Your task to perform on an android device: Clear the cart on walmart.com. Add "logitech g pro" to the cart on walmart.com Image 0: 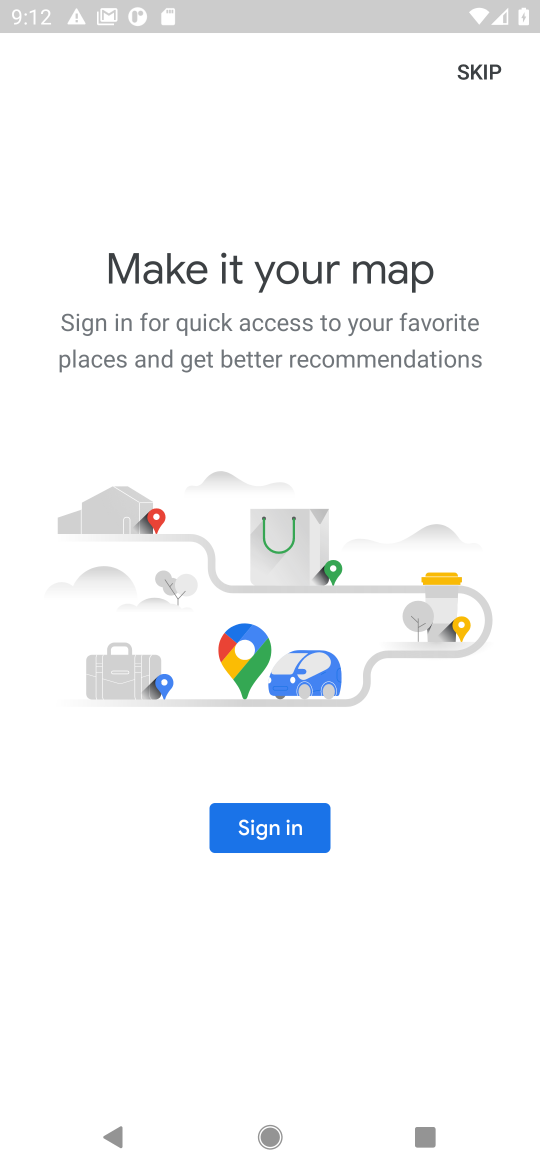
Step 0: press home button
Your task to perform on an android device: Clear the cart on walmart.com. Add "logitech g pro" to the cart on walmart.com Image 1: 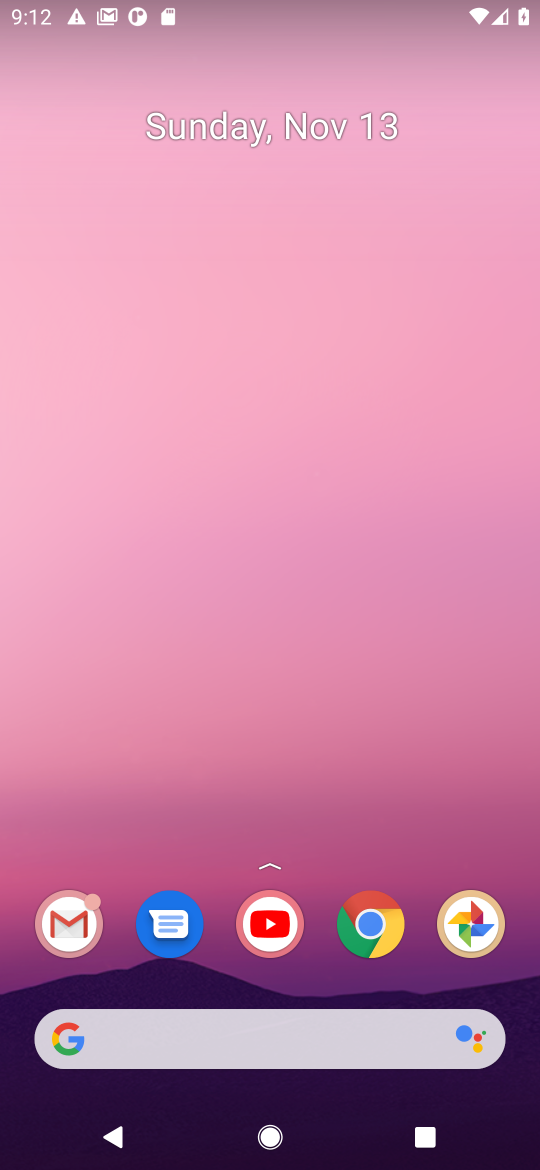
Step 1: click (373, 934)
Your task to perform on an android device: Clear the cart on walmart.com. Add "logitech g pro" to the cart on walmart.com Image 2: 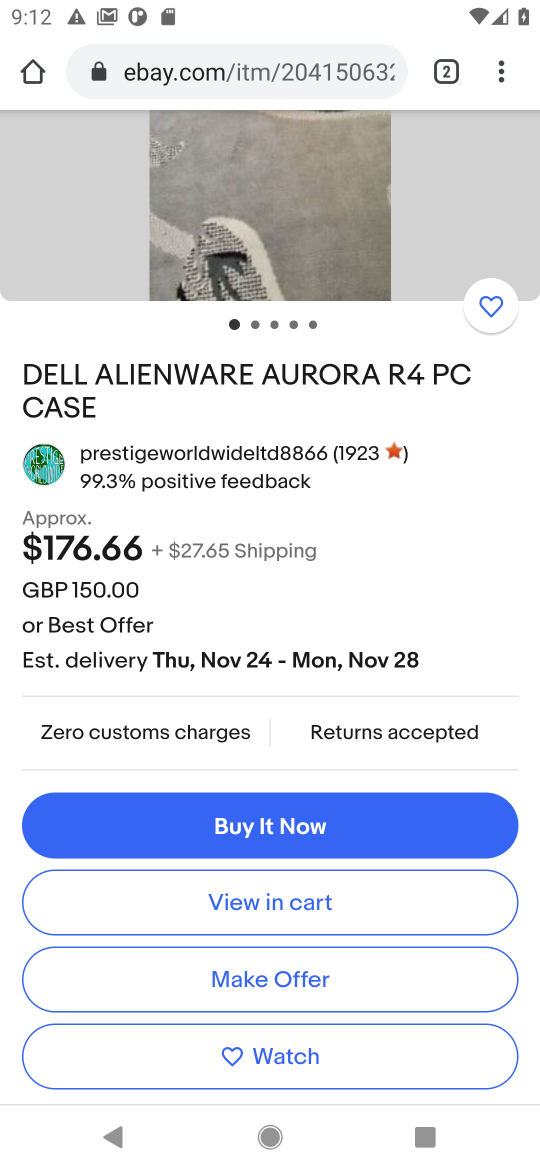
Step 2: click (217, 64)
Your task to perform on an android device: Clear the cart on walmart.com. Add "logitech g pro" to the cart on walmart.com Image 3: 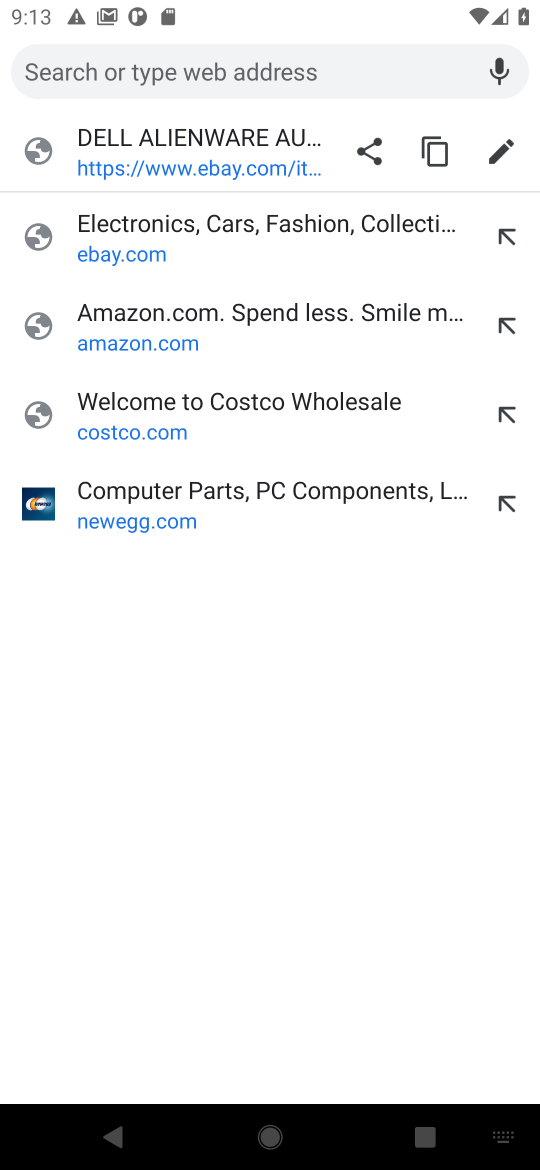
Step 3: click (170, 76)
Your task to perform on an android device: Clear the cart on walmart.com. Add "logitech g pro" to the cart on walmart.com Image 4: 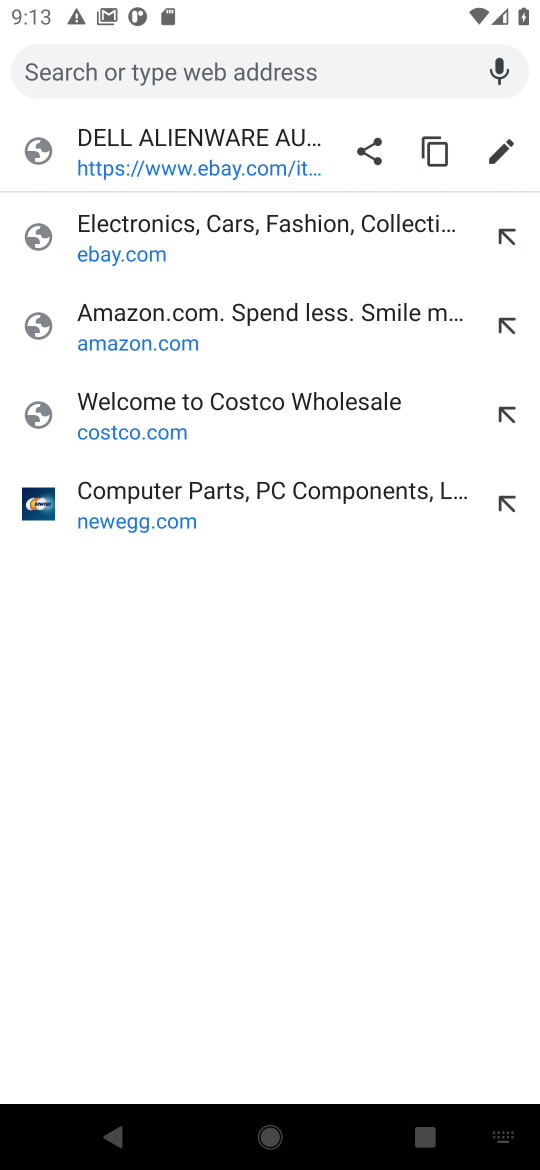
Step 4: type "walamrt.com"
Your task to perform on an android device: Clear the cart on walmart.com. Add "logitech g pro" to the cart on walmart.com Image 5: 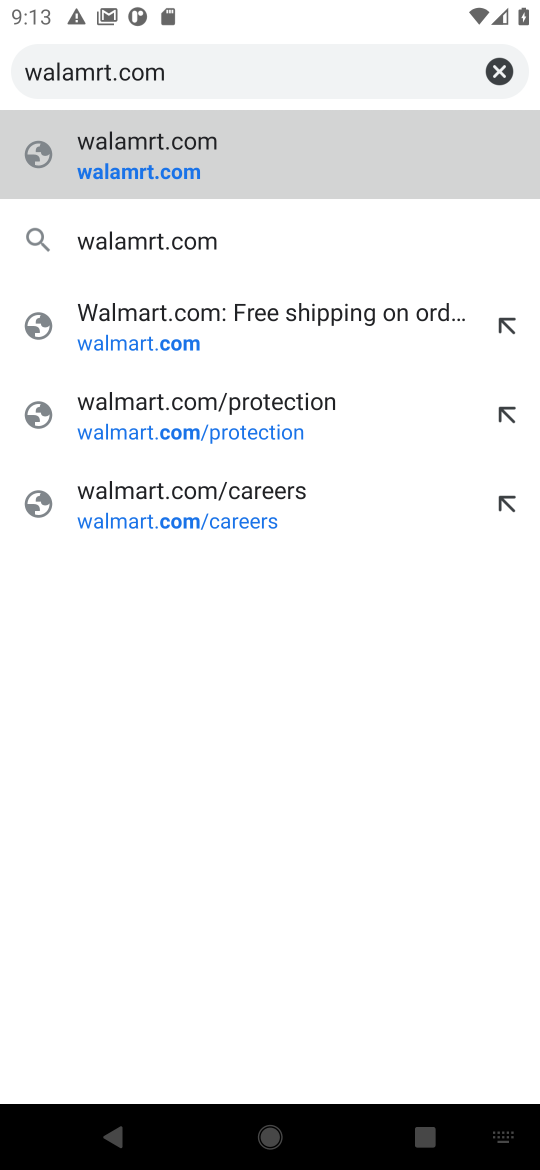
Step 5: click (124, 346)
Your task to perform on an android device: Clear the cart on walmart.com. Add "logitech g pro" to the cart on walmart.com Image 6: 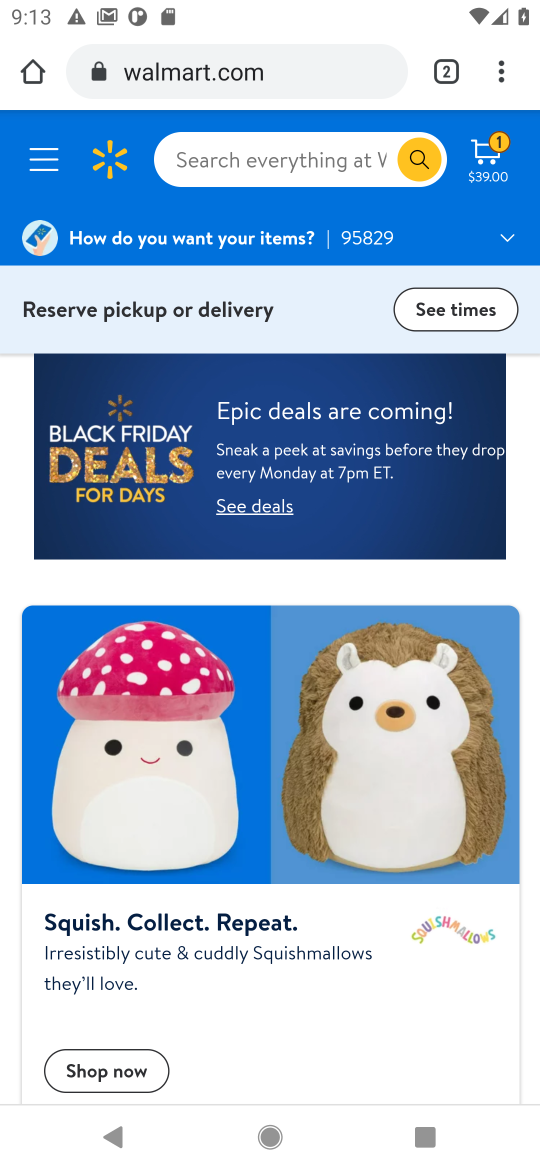
Step 6: click (292, 170)
Your task to perform on an android device: Clear the cart on walmart.com. Add "logitech g pro" to the cart on walmart.com Image 7: 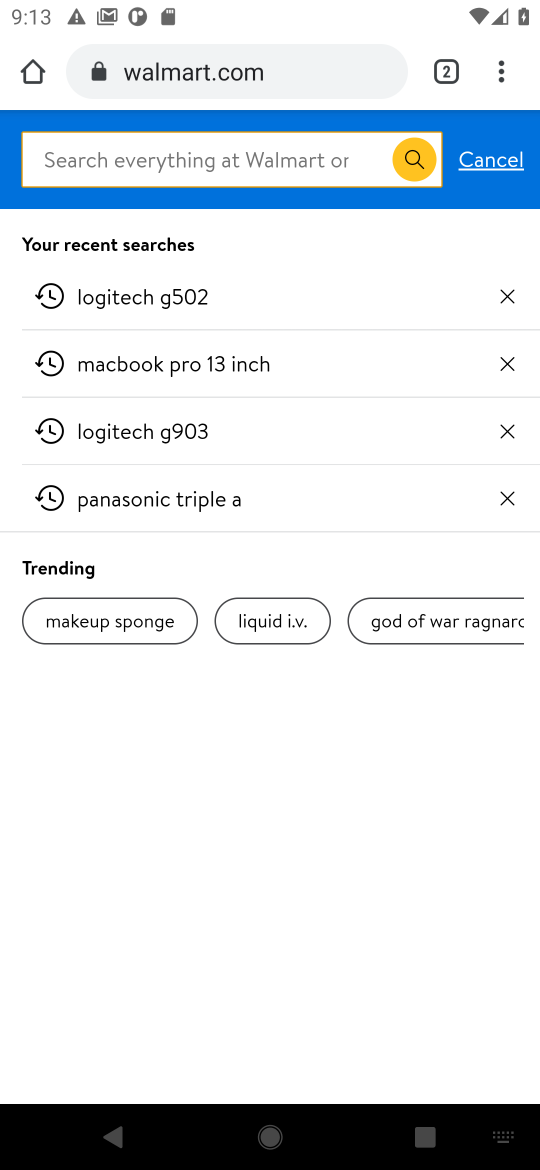
Step 7: click (513, 161)
Your task to perform on an android device: Clear the cart on walmart.com. Add "logitech g pro" to the cart on walmart.com Image 8: 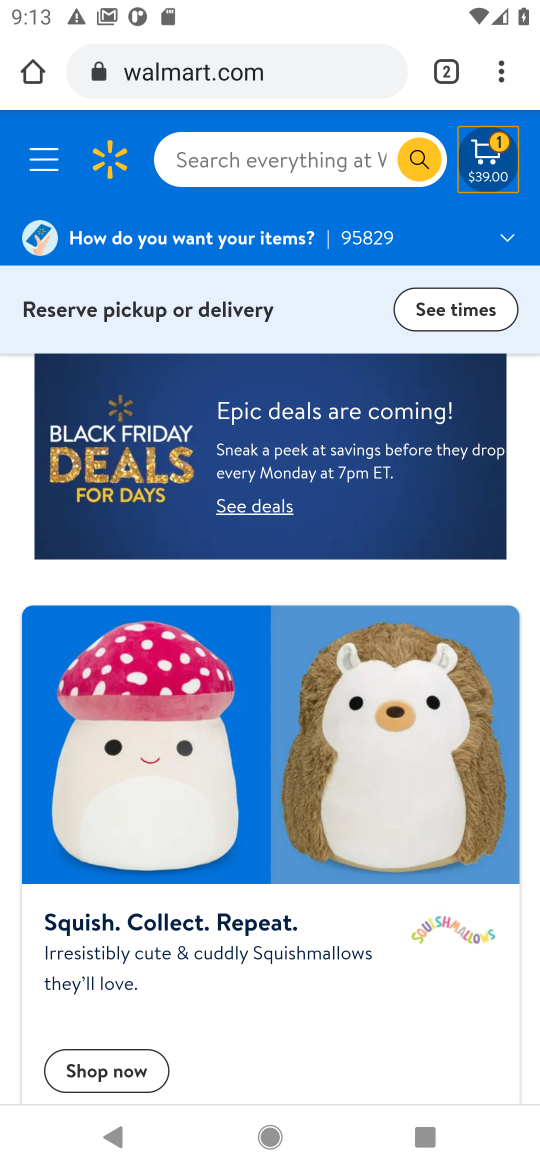
Step 8: click (492, 170)
Your task to perform on an android device: Clear the cart on walmart.com. Add "logitech g pro" to the cart on walmart.com Image 9: 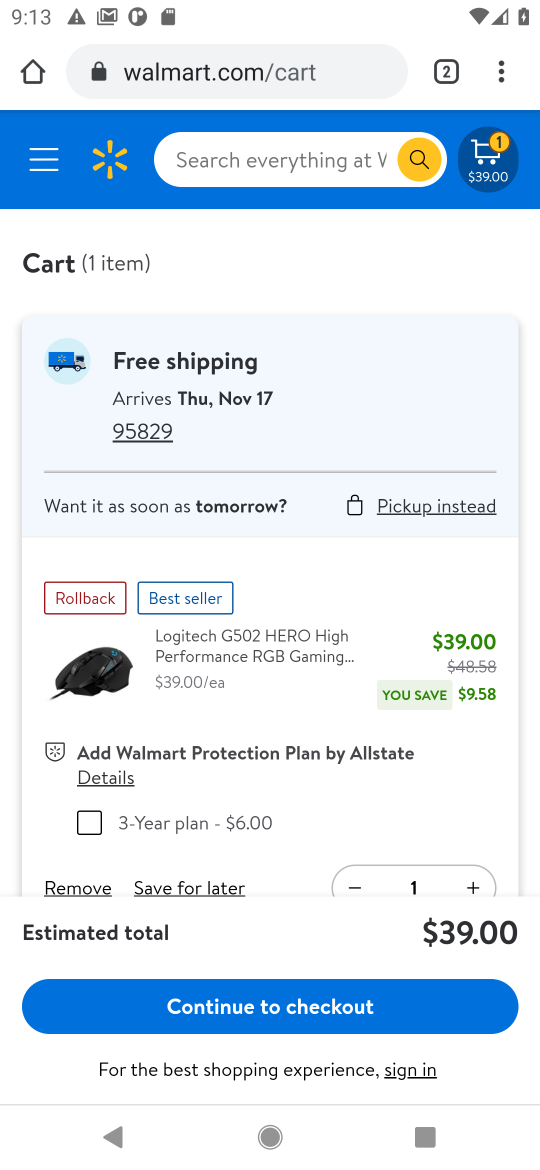
Step 9: click (78, 887)
Your task to perform on an android device: Clear the cart on walmart.com. Add "logitech g pro" to the cart on walmart.com Image 10: 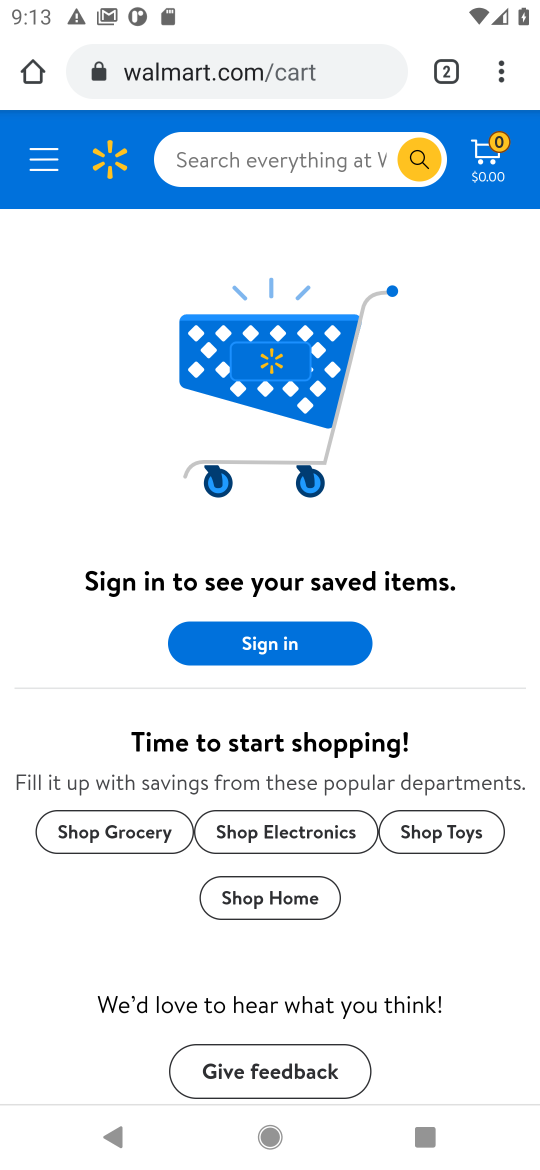
Step 10: click (208, 162)
Your task to perform on an android device: Clear the cart on walmart.com. Add "logitech g pro" to the cart on walmart.com Image 11: 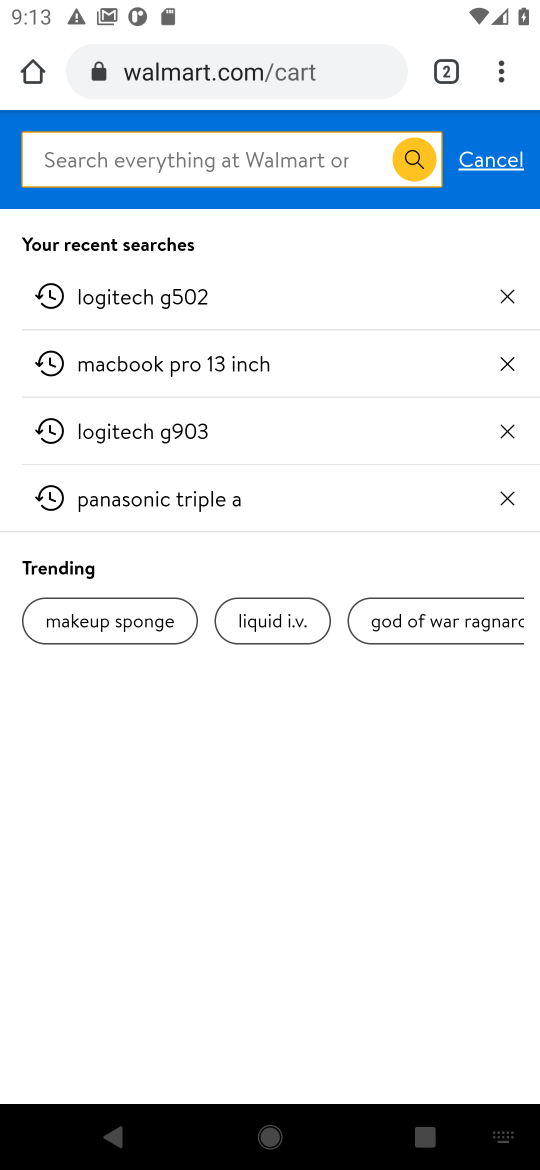
Step 11: type "logitech g pro"
Your task to perform on an android device: Clear the cart on walmart.com. Add "logitech g pro" to the cart on walmart.com Image 12: 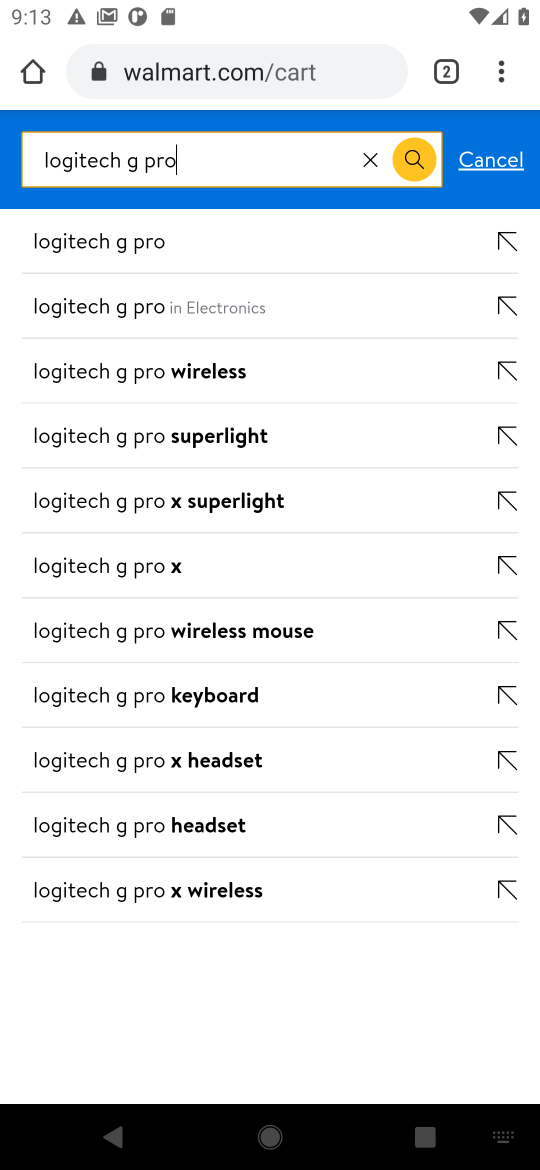
Step 12: click (104, 254)
Your task to perform on an android device: Clear the cart on walmart.com. Add "logitech g pro" to the cart on walmart.com Image 13: 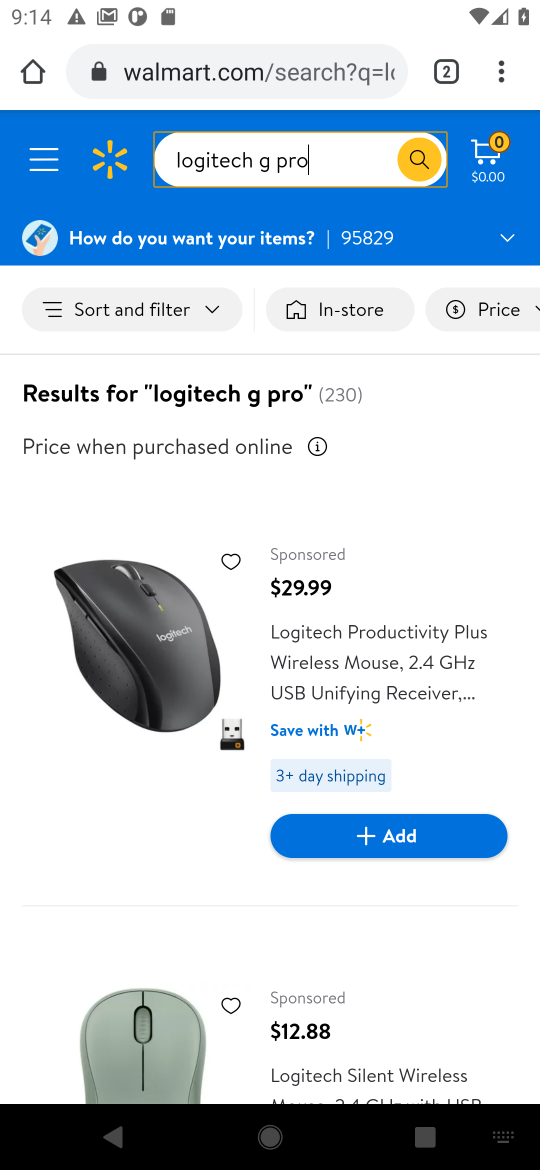
Step 13: drag from (149, 815) to (149, 382)
Your task to perform on an android device: Clear the cart on walmart.com. Add "logitech g pro" to the cart on walmart.com Image 14: 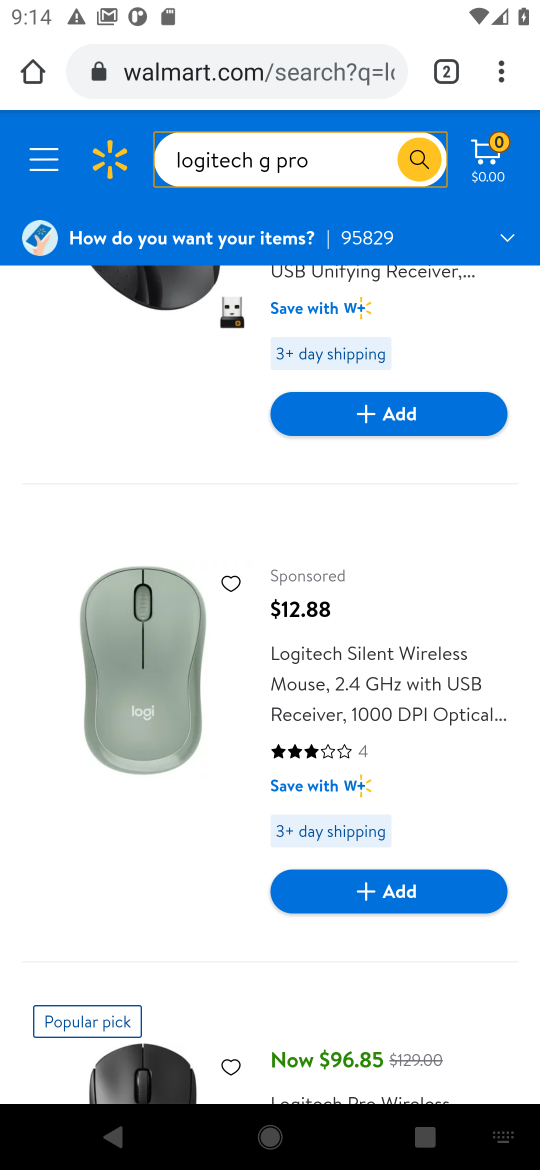
Step 14: drag from (148, 835) to (177, 324)
Your task to perform on an android device: Clear the cart on walmart.com. Add "logitech g pro" to the cart on walmart.com Image 15: 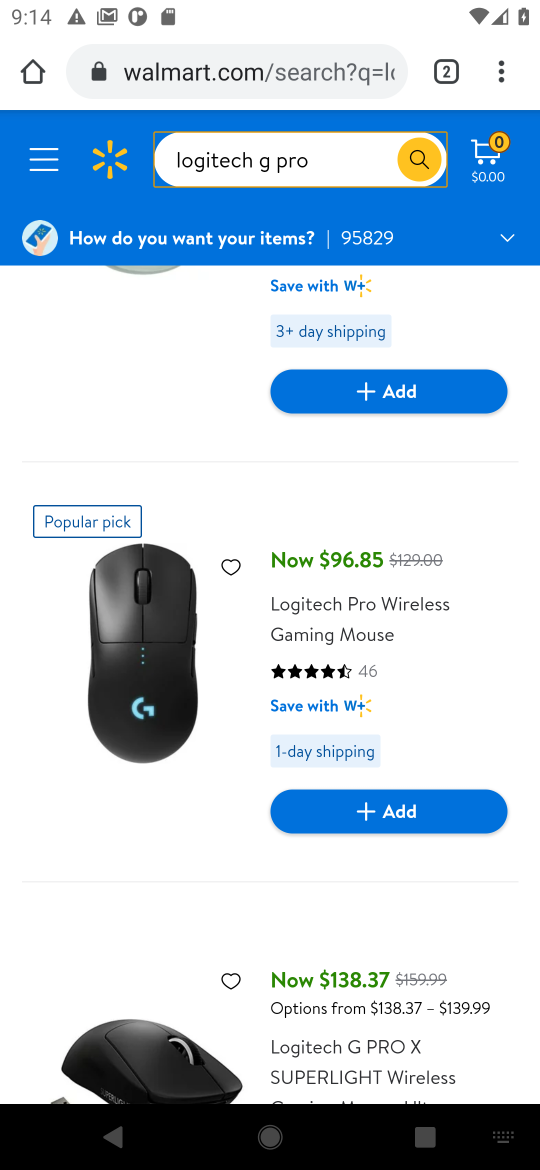
Step 15: drag from (166, 729) to (137, 393)
Your task to perform on an android device: Clear the cart on walmart.com. Add "logitech g pro" to the cart on walmart.com Image 16: 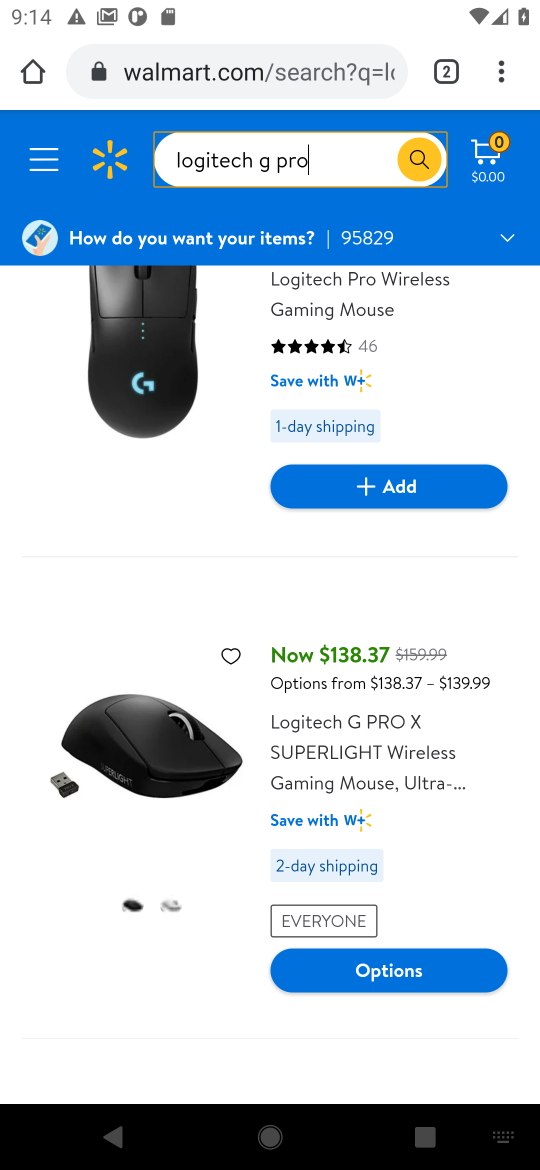
Step 16: click (192, 779)
Your task to perform on an android device: Clear the cart on walmart.com. Add "logitech g pro" to the cart on walmart.com Image 17: 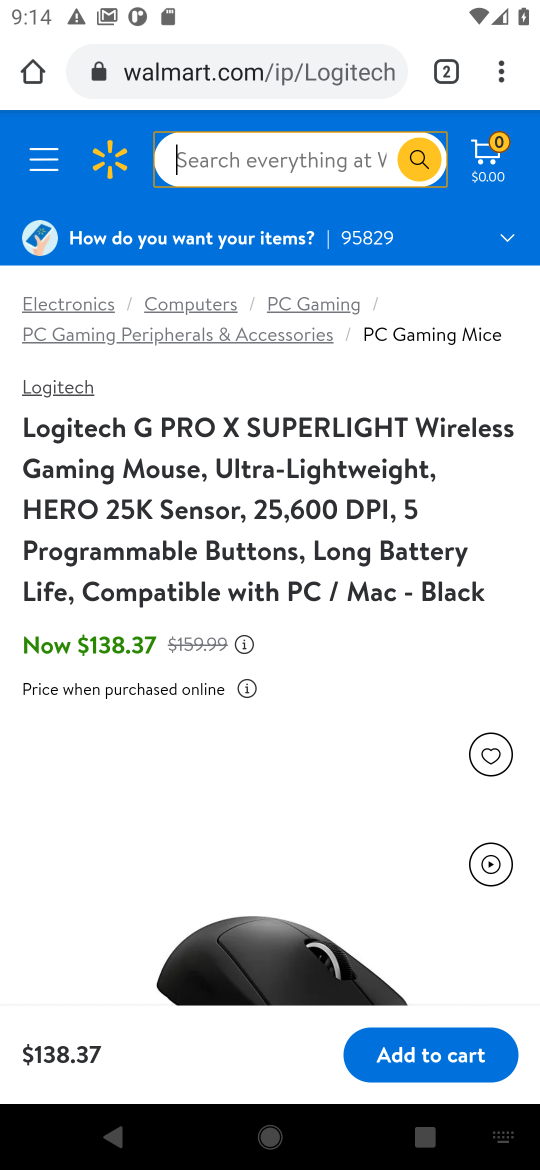
Step 17: click (427, 1063)
Your task to perform on an android device: Clear the cart on walmart.com. Add "logitech g pro" to the cart on walmart.com Image 18: 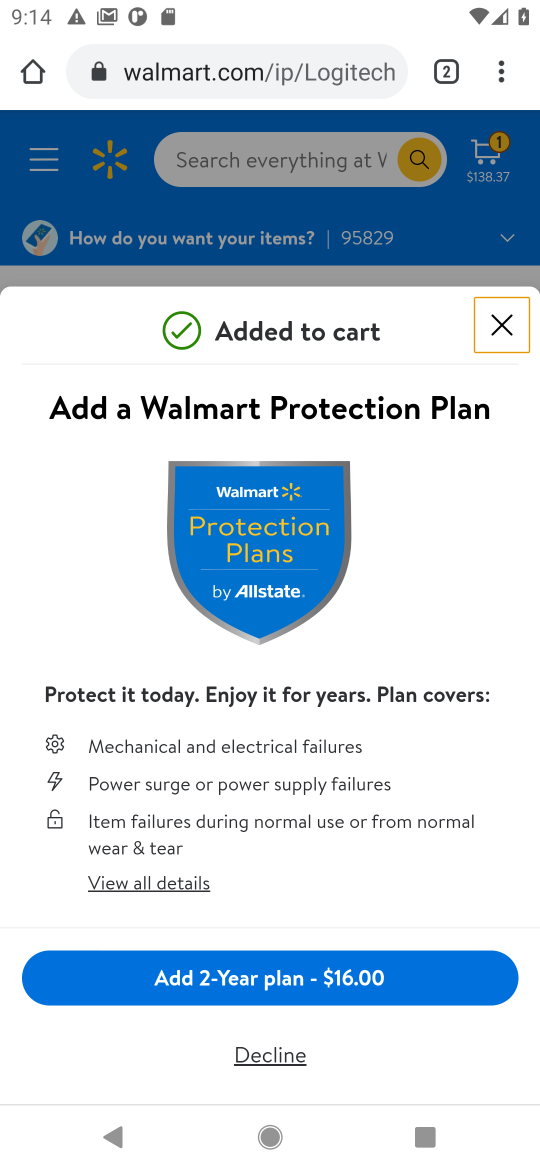
Step 18: task complete